Your task to perform on an android device: see tabs open on other devices in the chrome app Image 0: 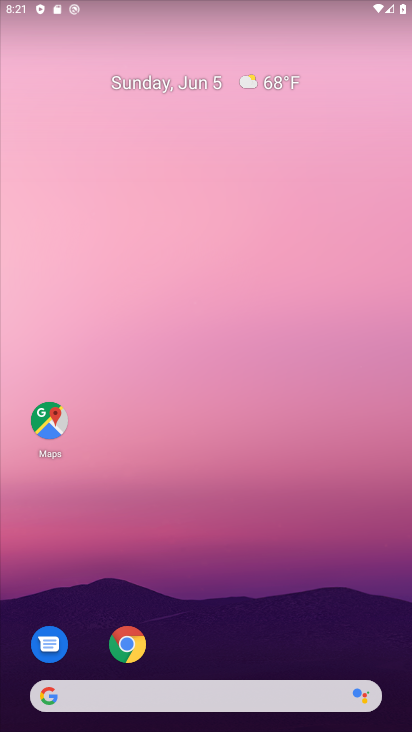
Step 0: task complete